Your task to perform on an android device: Go to Yahoo.com Image 0: 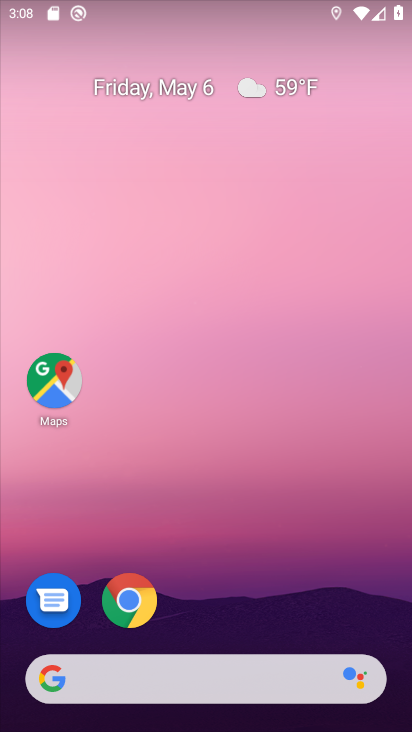
Step 0: click (135, 597)
Your task to perform on an android device: Go to Yahoo.com Image 1: 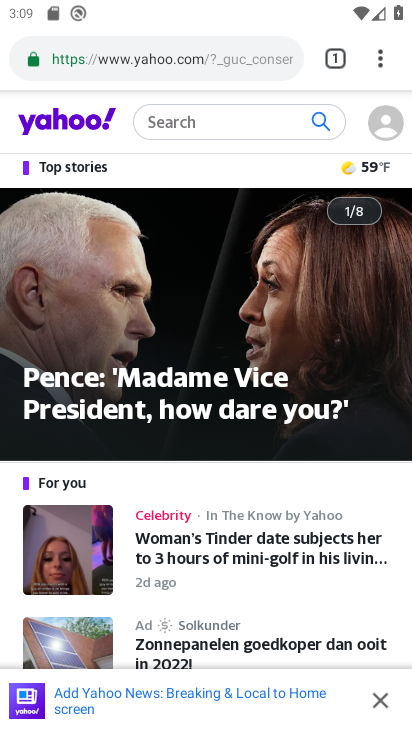
Step 1: task complete